Your task to perform on an android device: toggle airplane mode Image 0: 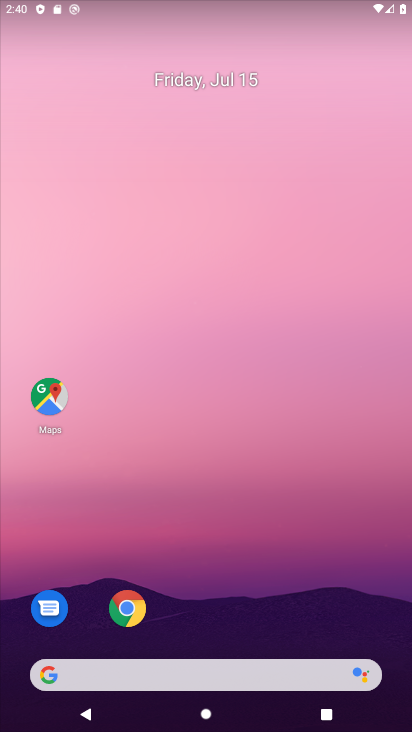
Step 0: drag from (174, 640) to (240, 193)
Your task to perform on an android device: toggle airplane mode Image 1: 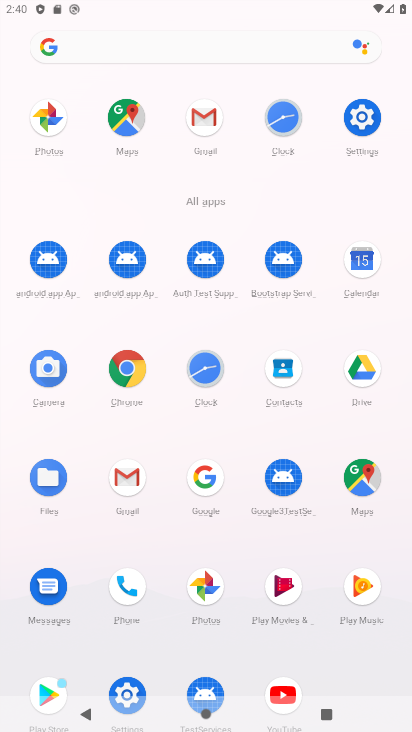
Step 1: click (122, 676)
Your task to perform on an android device: toggle airplane mode Image 2: 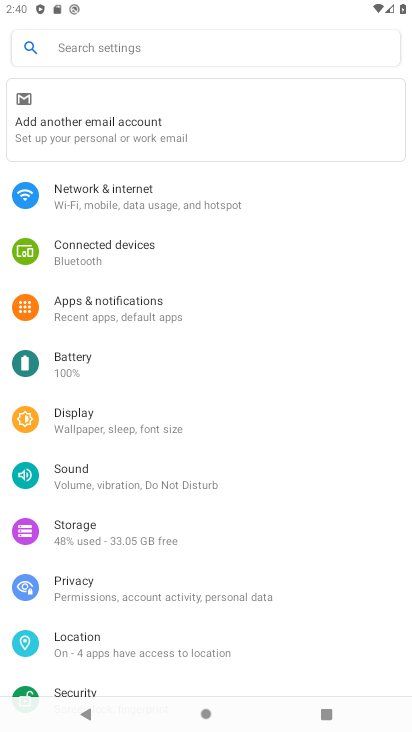
Step 2: click (208, 200)
Your task to perform on an android device: toggle airplane mode Image 3: 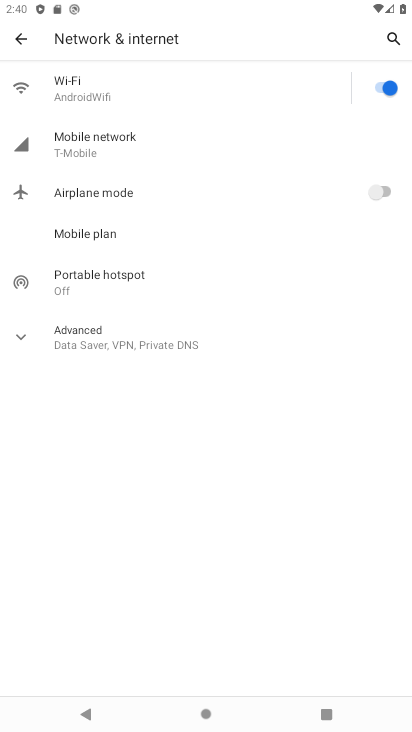
Step 3: click (397, 192)
Your task to perform on an android device: toggle airplane mode Image 4: 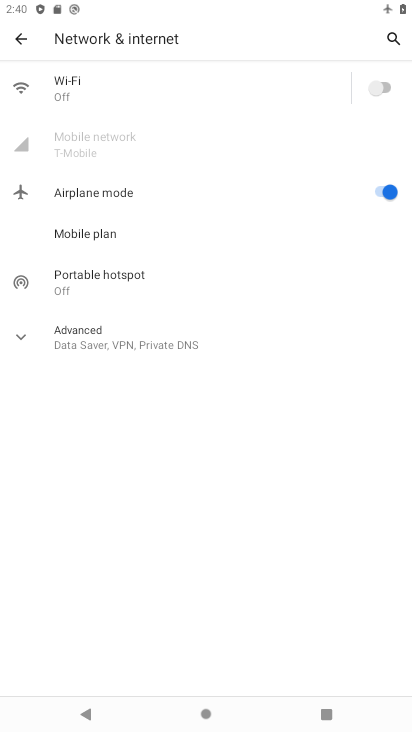
Step 4: task complete